Your task to perform on an android device: check data usage Image 0: 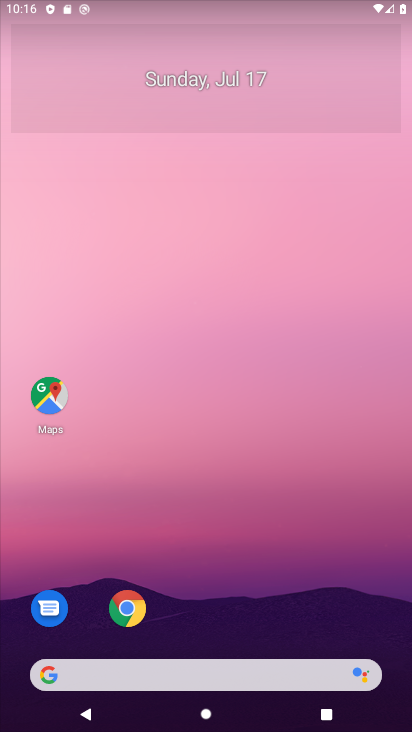
Step 0: drag from (58, 645) to (145, 12)
Your task to perform on an android device: check data usage Image 1: 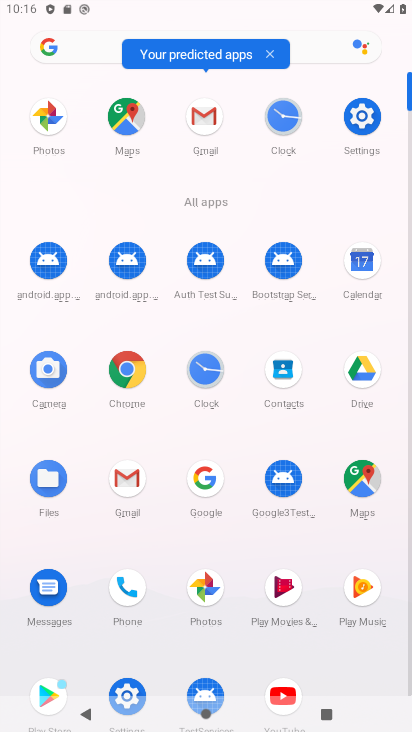
Step 1: drag from (124, 468) to (192, 151)
Your task to perform on an android device: check data usage Image 2: 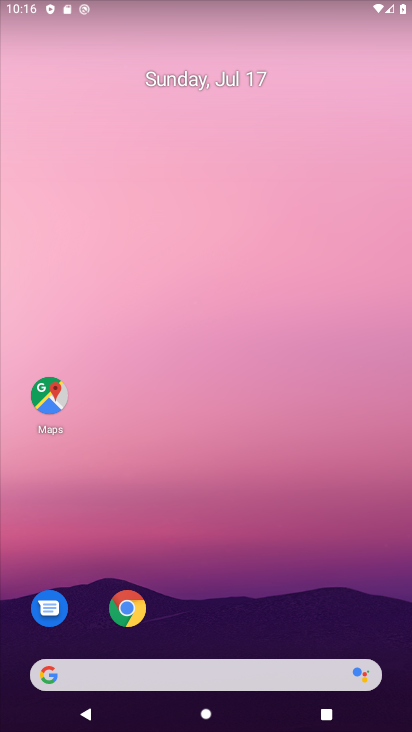
Step 2: drag from (128, 512) to (194, 251)
Your task to perform on an android device: check data usage Image 3: 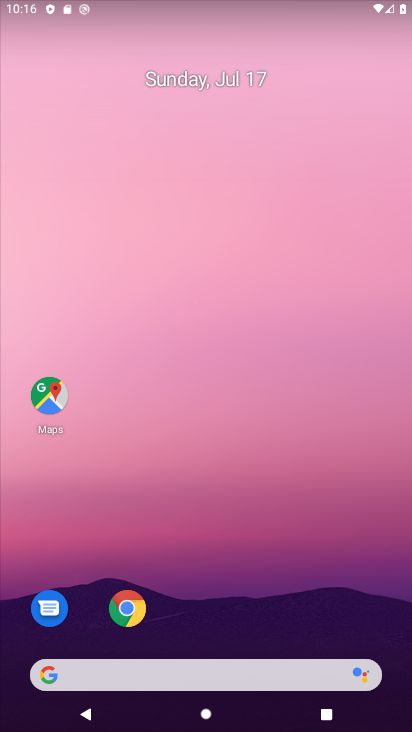
Step 3: drag from (29, 702) to (136, 221)
Your task to perform on an android device: check data usage Image 4: 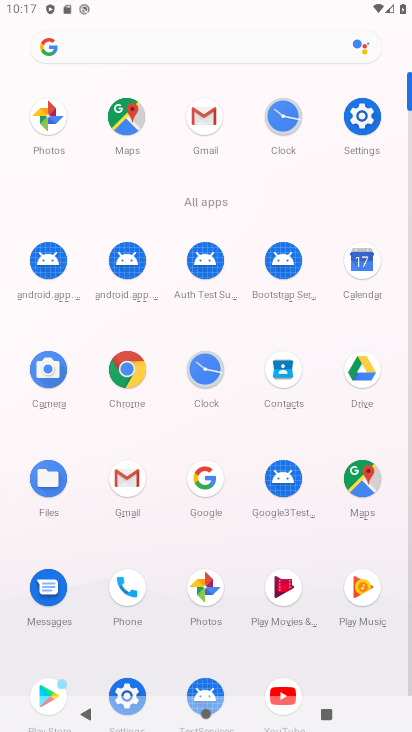
Step 4: click (202, 379)
Your task to perform on an android device: check data usage Image 5: 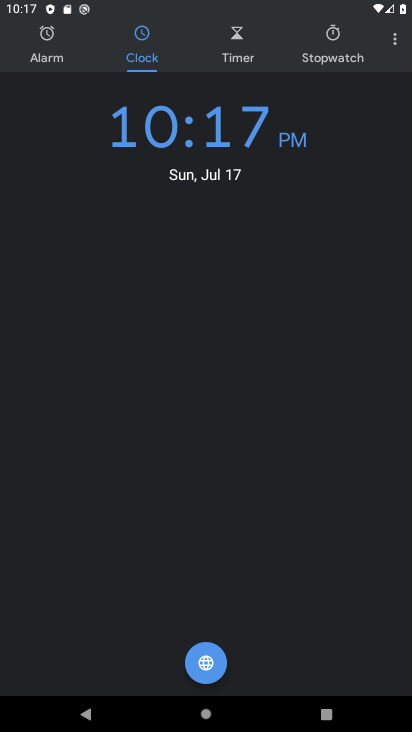
Step 5: click (321, 46)
Your task to perform on an android device: check data usage Image 6: 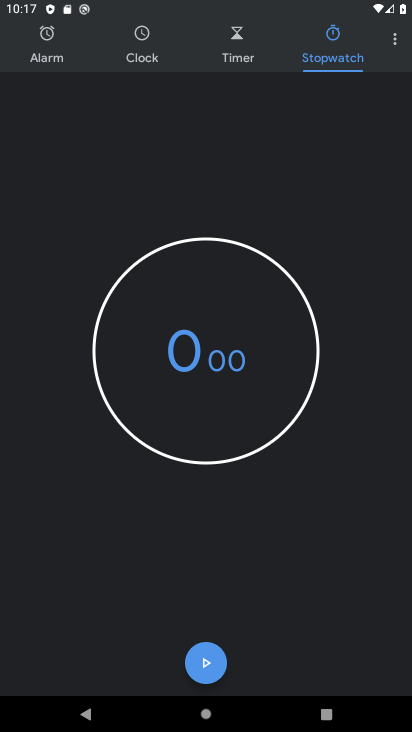
Step 6: press home button
Your task to perform on an android device: check data usage Image 7: 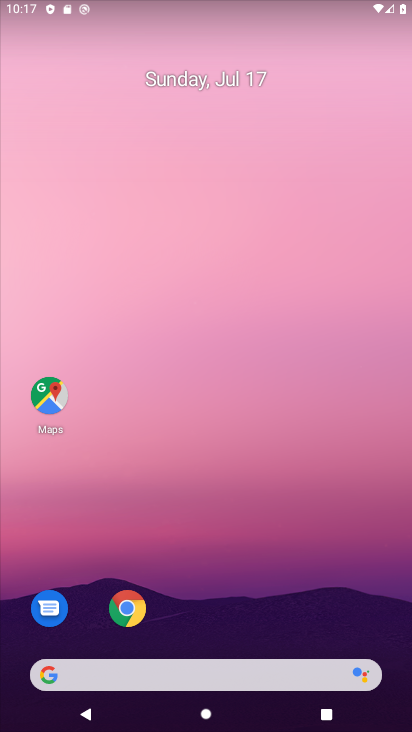
Step 7: drag from (26, 707) to (197, 74)
Your task to perform on an android device: check data usage Image 8: 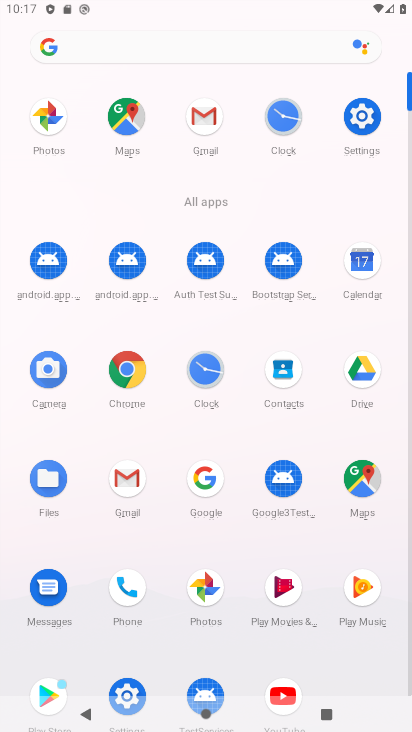
Step 8: click (131, 692)
Your task to perform on an android device: check data usage Image 9: 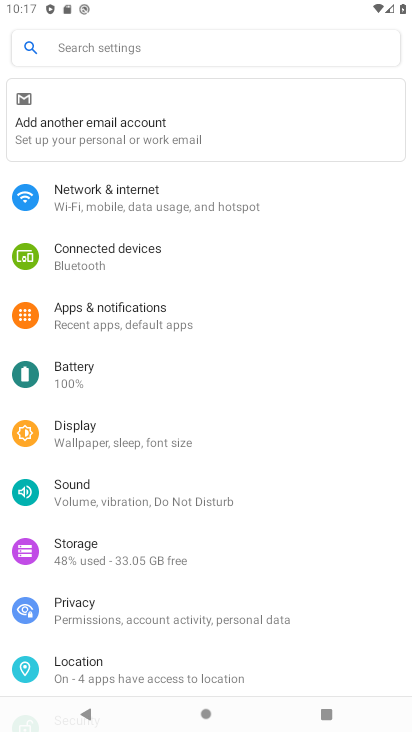
Step 9: click (104, 192)
Your task to perform on an android device: check data usage Image 10: 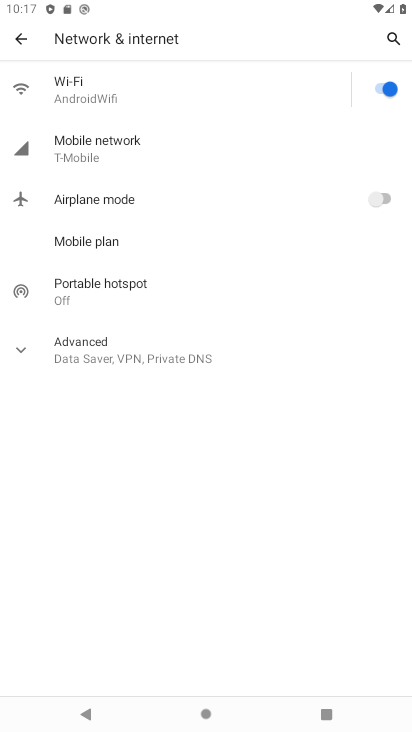
Step 10: click (100, 155)
Your task to perform on an android device: check data usage Image 11: 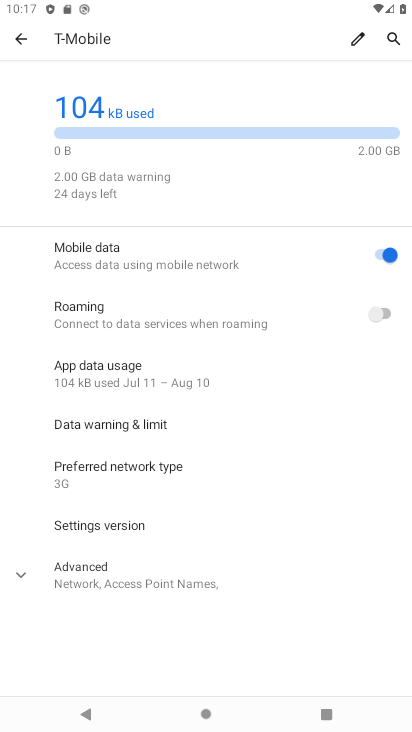
Step 11: task complete